Your task to perform on an android device: What's the weather going to be this weekend? Image 0: 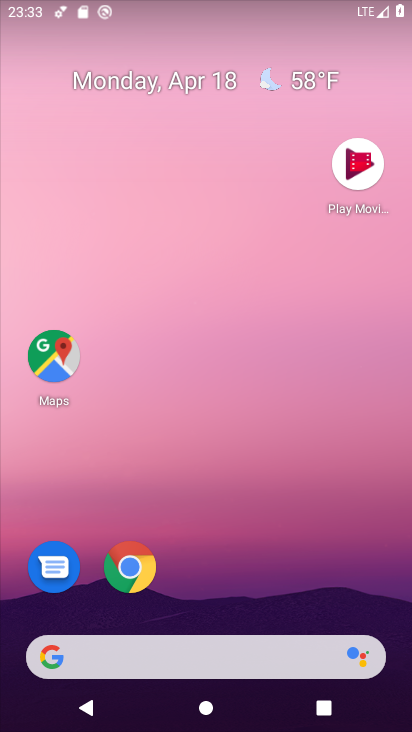
Step 0: click (185, 616)
Your task to perform on an android device: What's the weather going to be this weekend? Image 1: 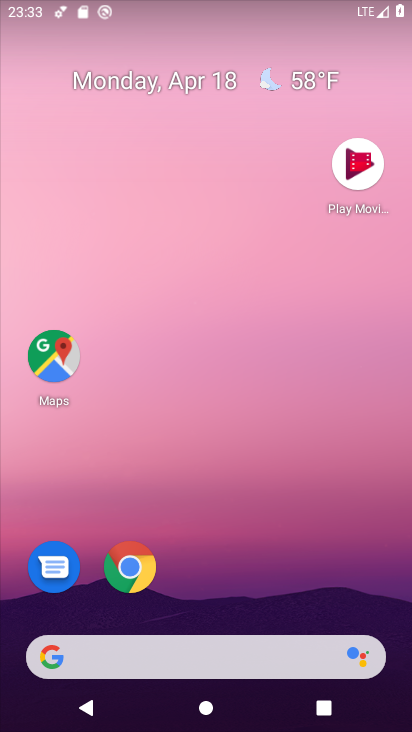
Step 1: click (136, 579)
Your task to perform on an android device: What's the weather going to be this weekend? Image 2: 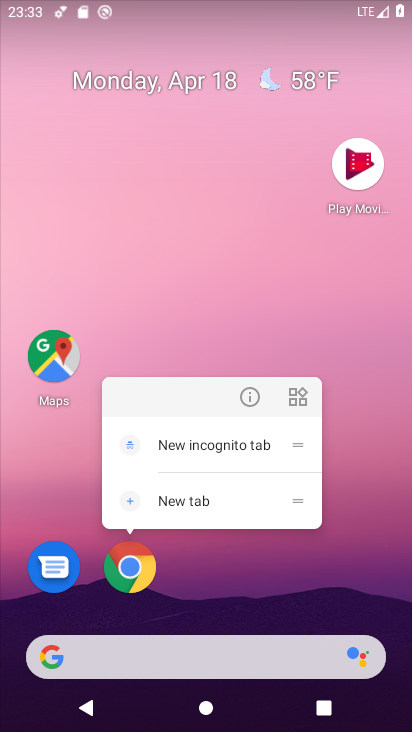
Step 2: click (264, 395)
Your task to perform on an android device: What's the weather going to be this weekend? Image 3: 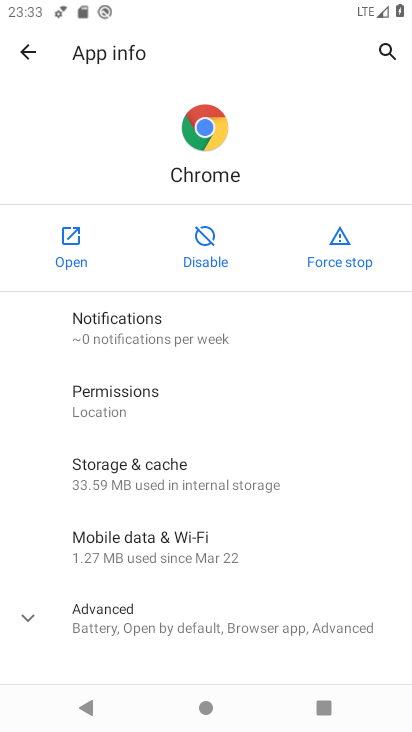
Step 3: click (55, 245)
Your task to perform on an android device: What's the weather going to be this weekend? Image 4: 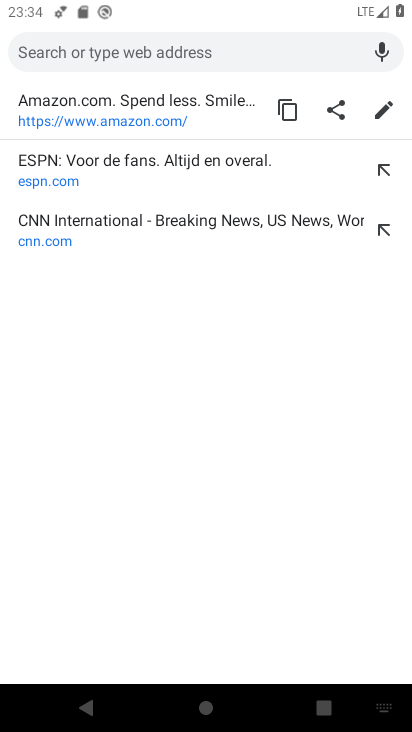
Step 4: click (163, 52)
Your task to perform on an android device: What's the weather going to be this weekend? Image 5: 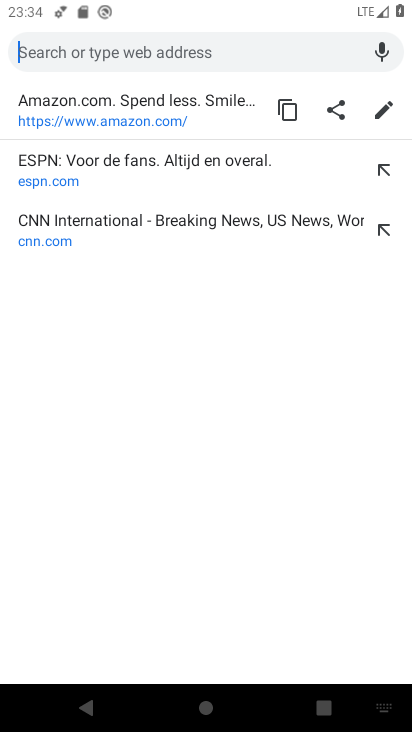
Step 5: type "weather going to be this weekend"
Your task to perform on an android device: What's the weather going to be this weekend? Image 6: 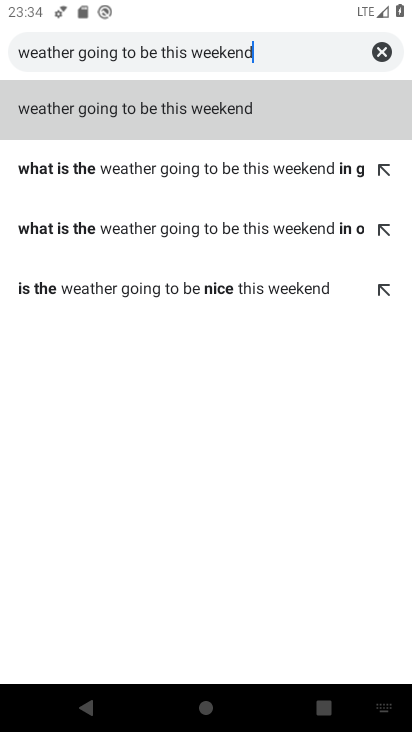
Step 6: click (198, 126)
Your task to perform on an android device: What's the weather going to be this weekend? Image 7: 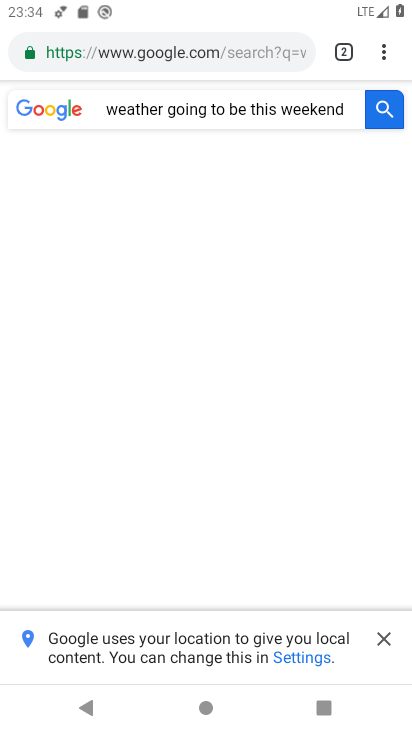
Step 7: task complete